Your task to perform on an android device: Show me recent news Image 0: 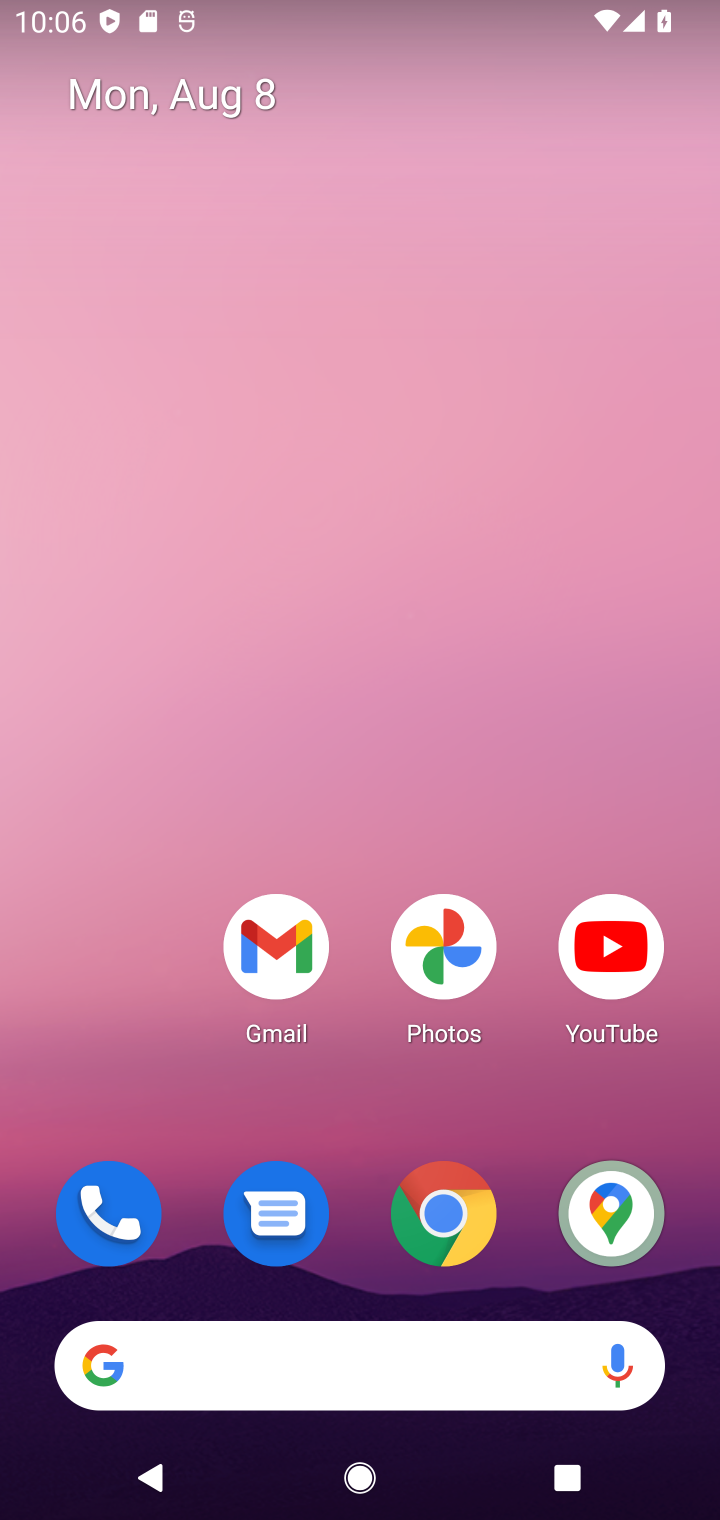
Step 0: drag from (308, 1024) to (341, 267)
Your task to perform on an android device: Show me recent news Image 1: 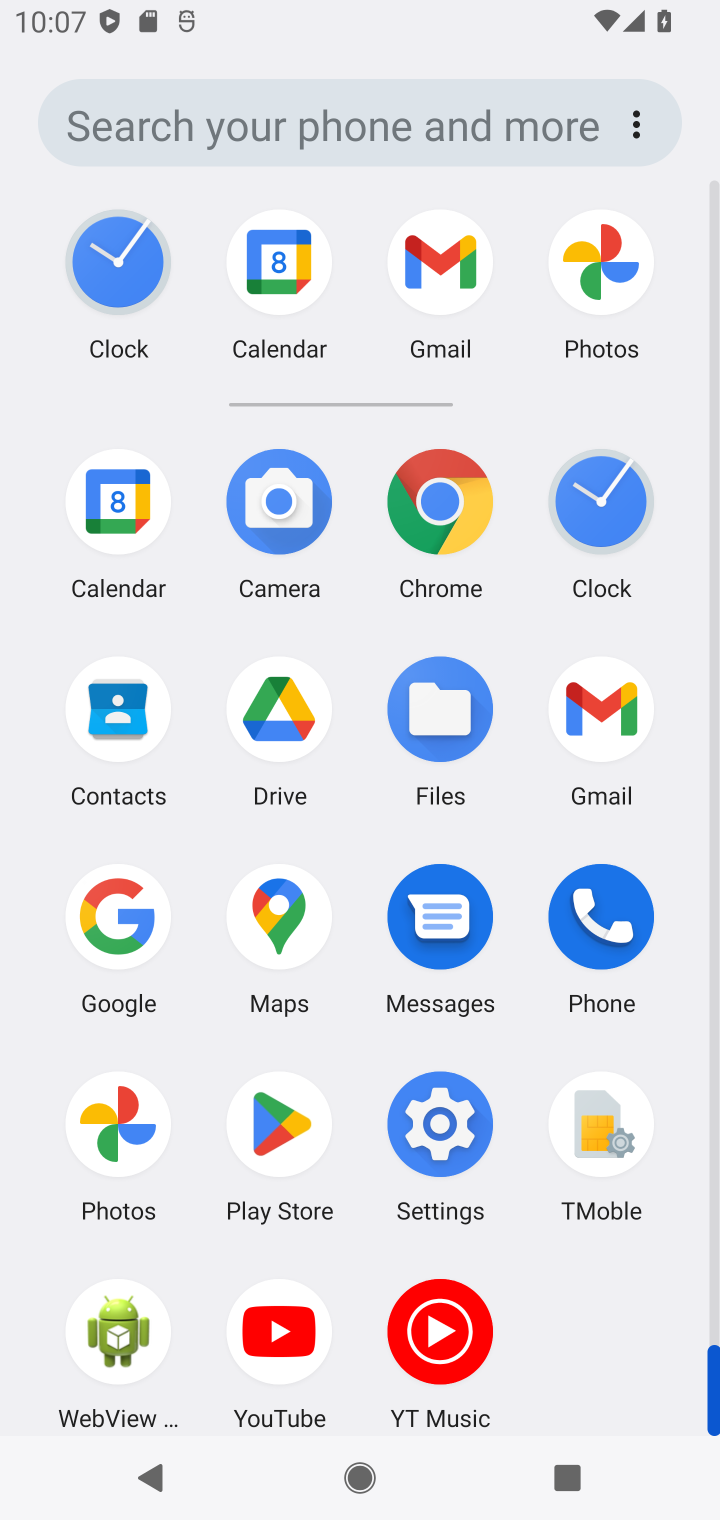
Step 1: click (113, 904)
Your task to perform on an android device: Show me recent news Image 2: 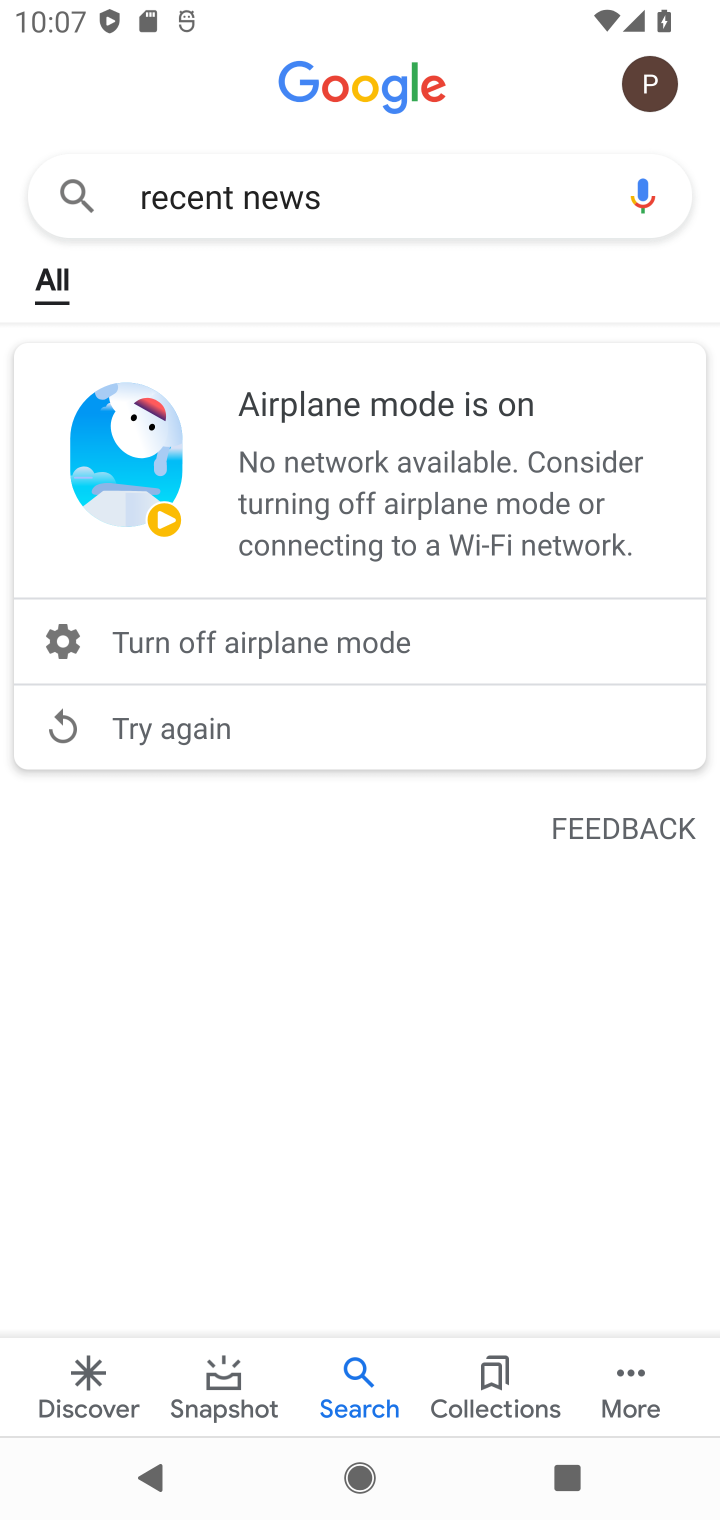
Step 2: click (95, 1383)
Your task to perform on an android device: Show me recent news Image 3: 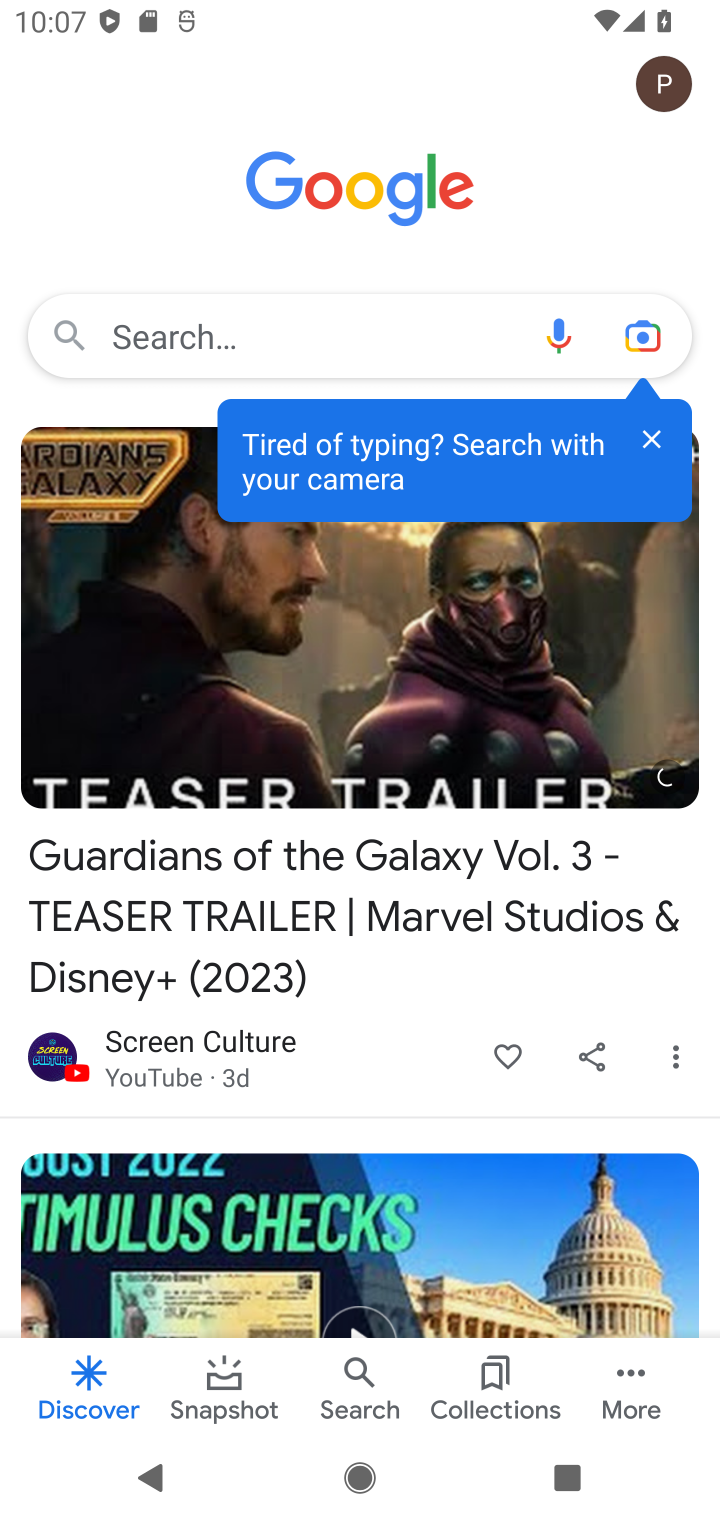
Step 3: click (348, 632)
Your task to perform on an android device: Show me recent news Image 4: 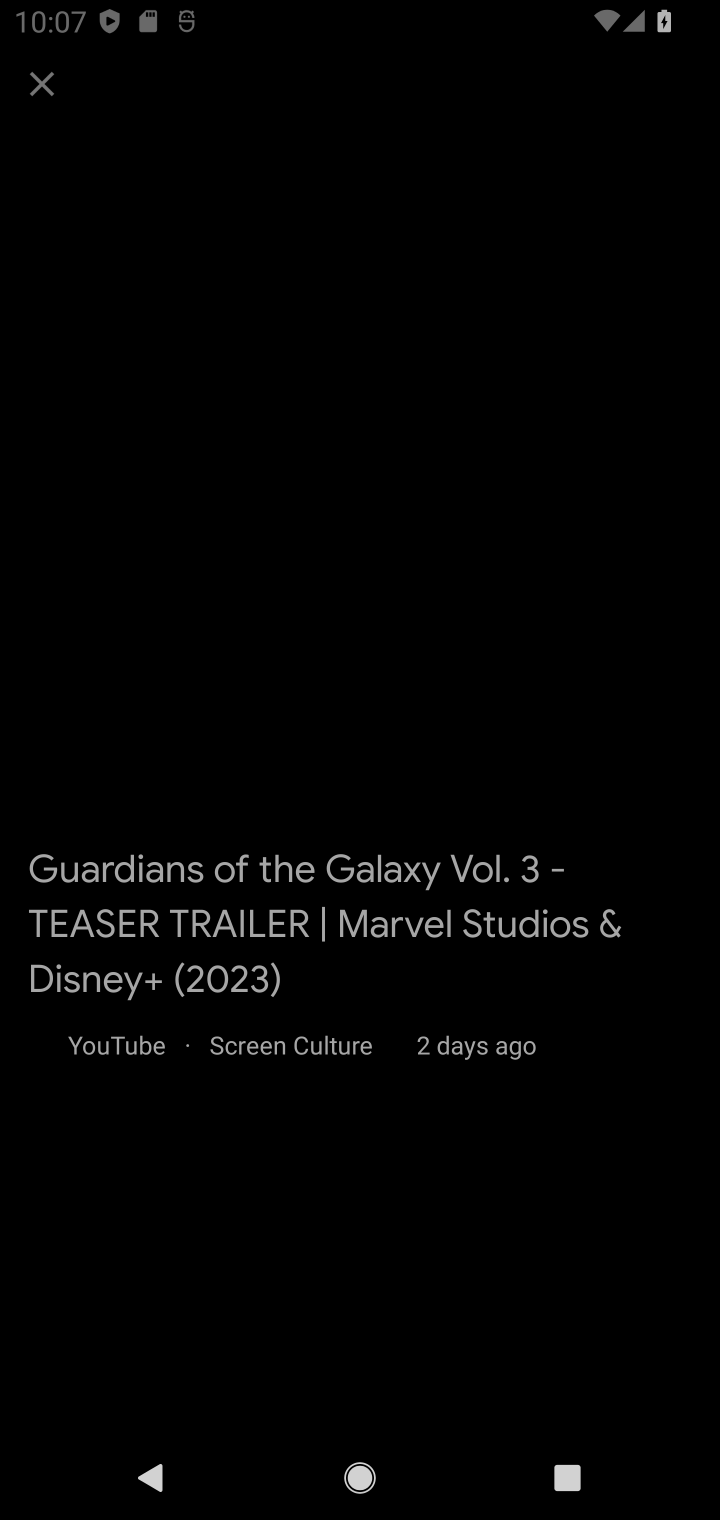
Step 4: task complete